Your task to perform on an android device: What is the speed of a tiger? Image 0: 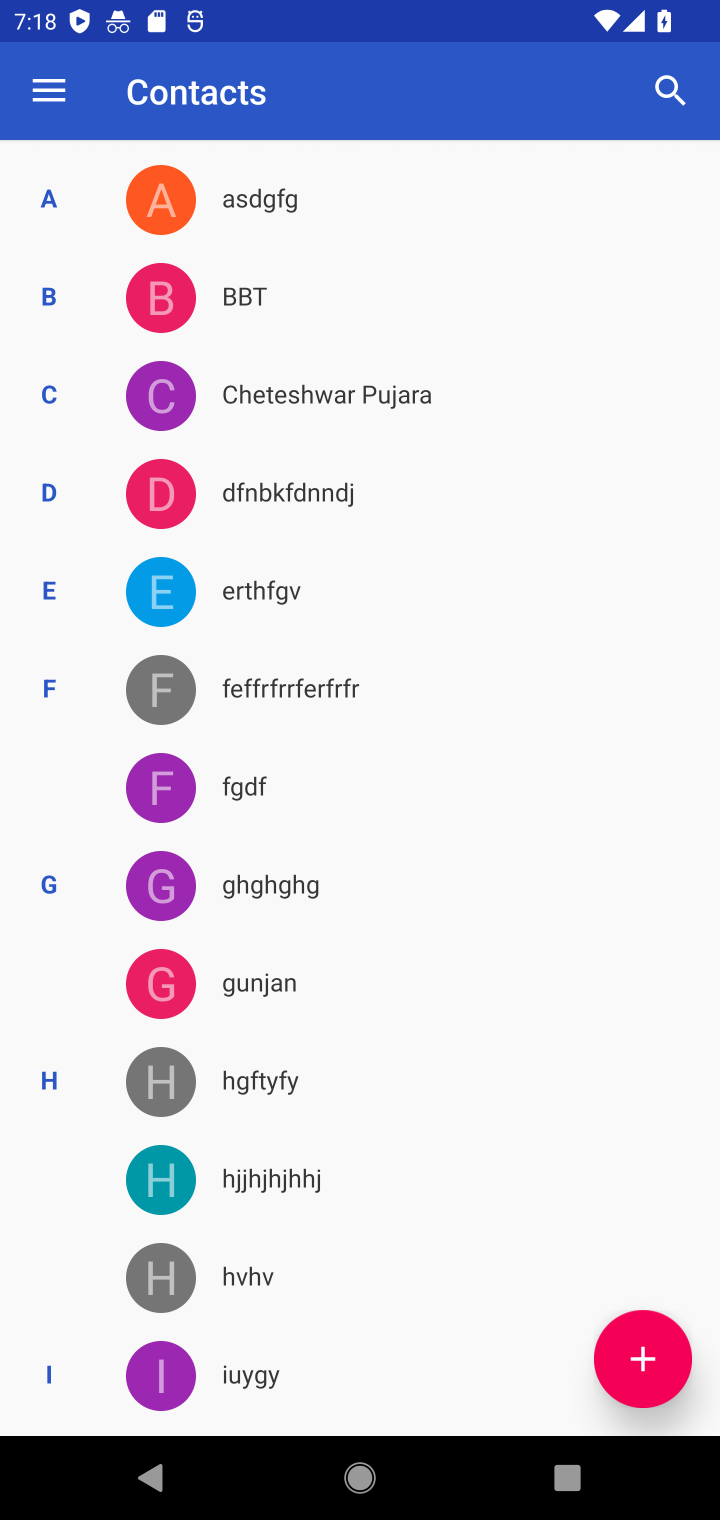
Step 0: press home button
Your task to perform on an android device: What is the speed of a tiger? Image 1: 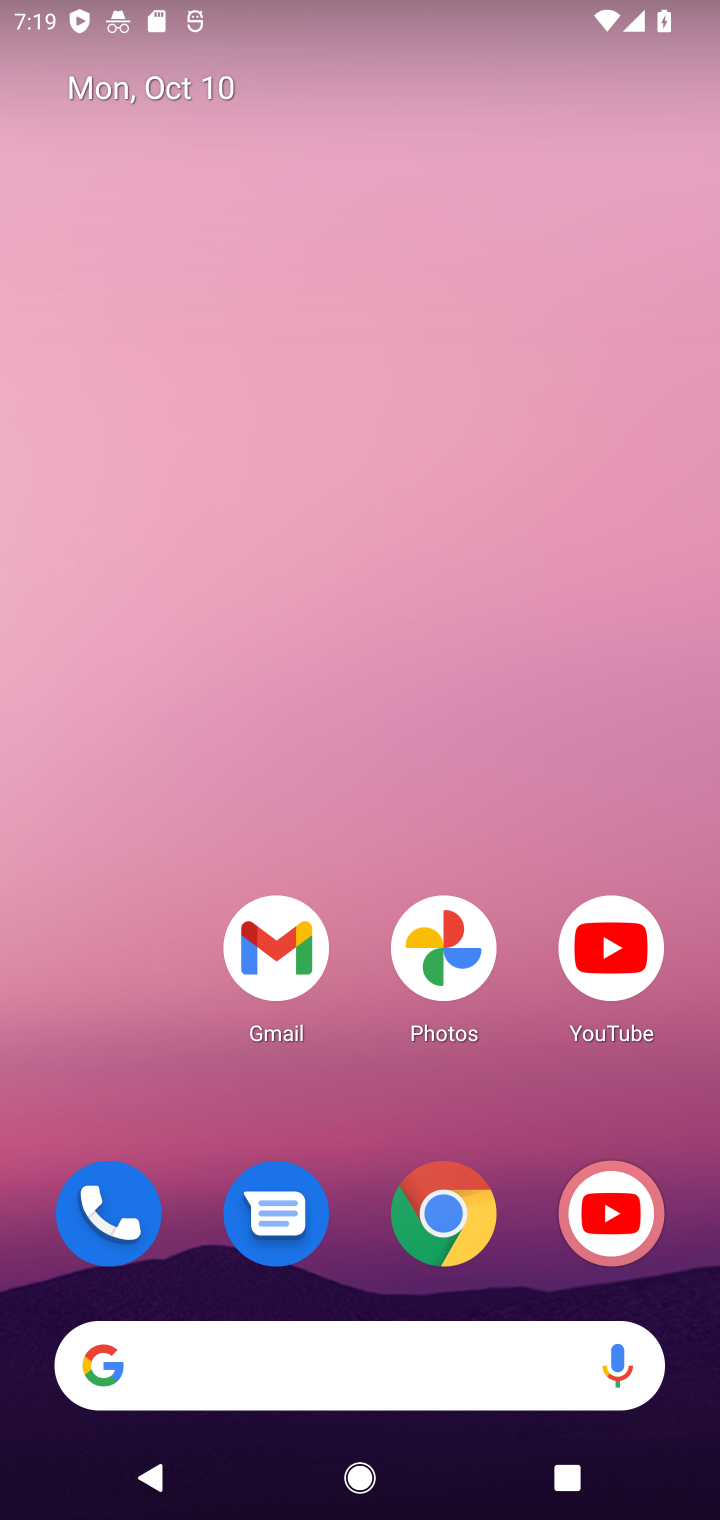
Step 1: click (337, 1357)
Your task to perform on an android device: What is the speed of a tiger? Image 2: 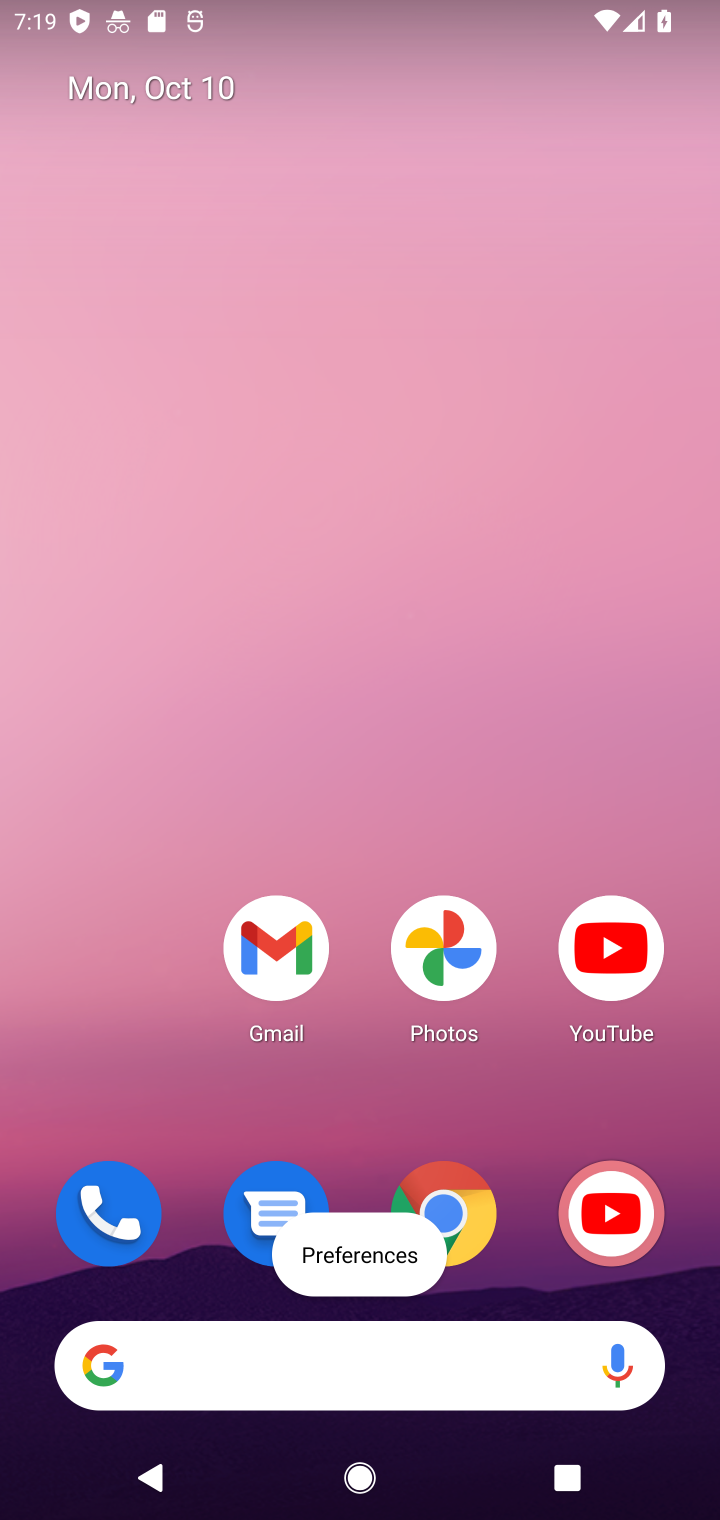
Step 2: type "What is the speed of a tiger"
Your task to perform on an android device: What is the speed of a tiger? Image 3: 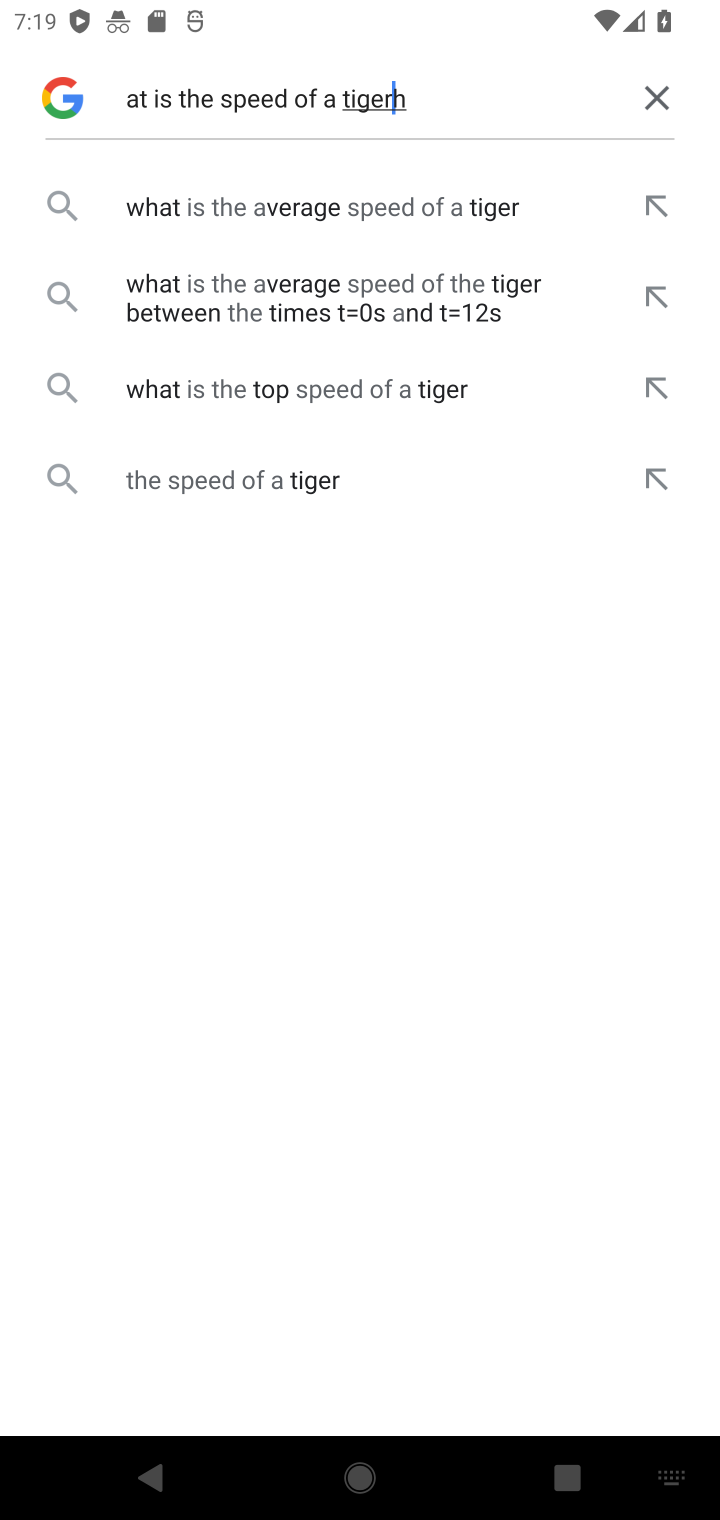
Step 3: click (244, 481)
Your task to perform on an android device: What is the speed of a tiger? Image 4: 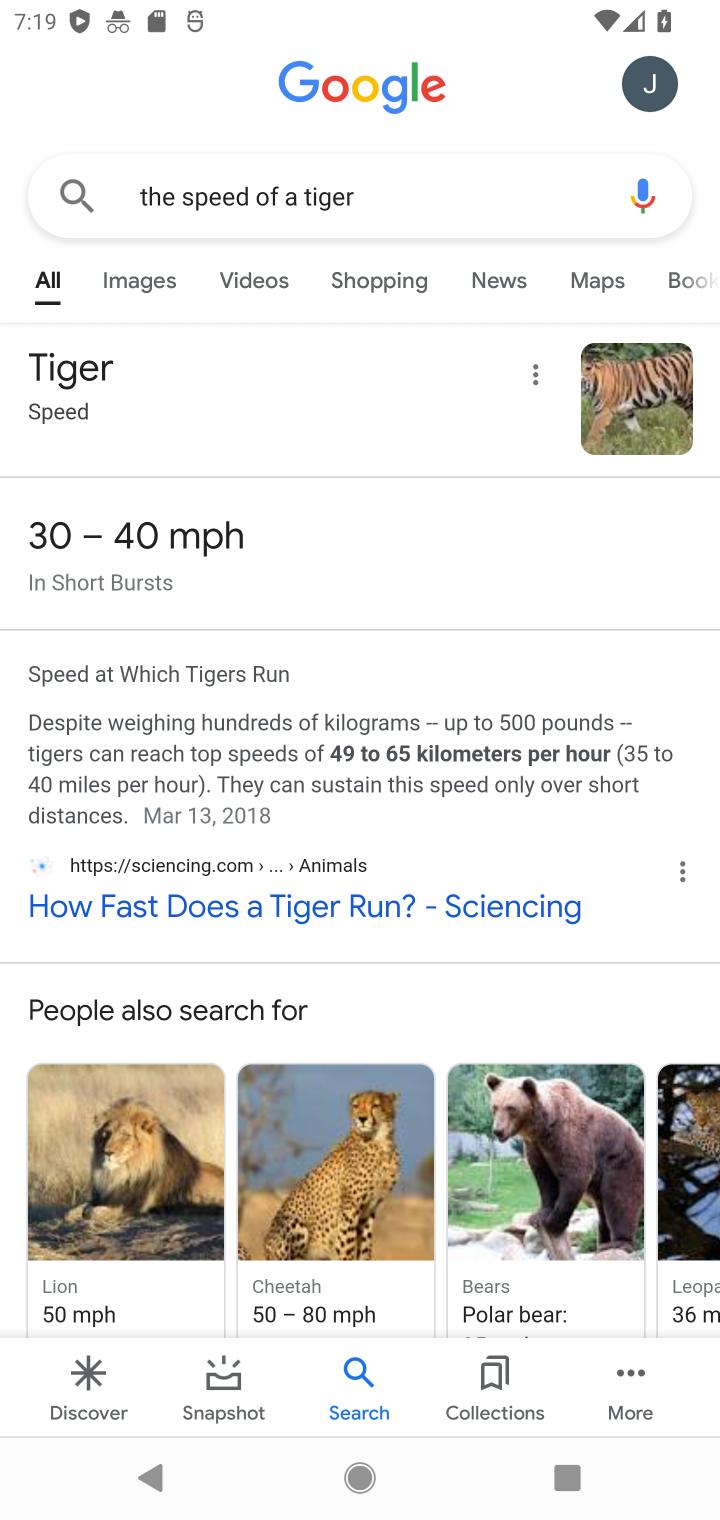
Step 4: task complete